Your task to perform on an android device: all mails in gmail Image 0: 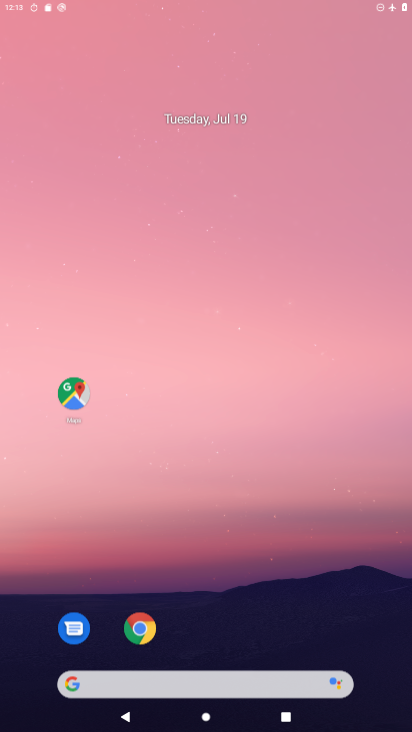
Step 0: click (275, 116)
Your task to perform on an android device: all mails in gmail Image 1: 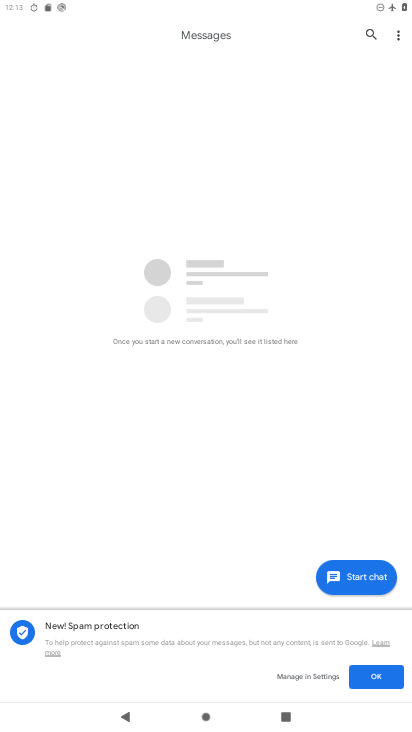
Step 1: press home button
Your task to perform on an android device: all mails in gmail Image 2: 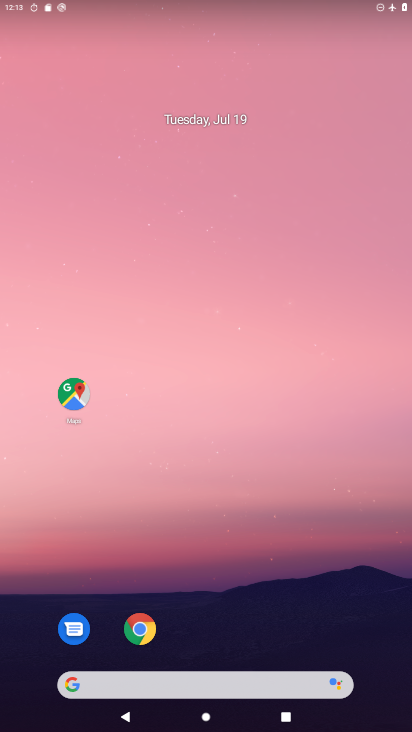
Step 2: drag from (252, 606) to (261, 112)
Your task to perform on an android device: all mails in gmail Image 3: 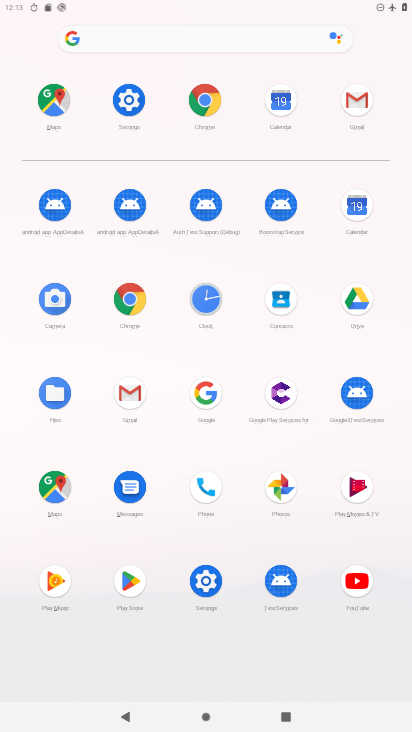
Step 3: click (356, 92)
Your task to perform on an android device: all mails in gmail Image 4: 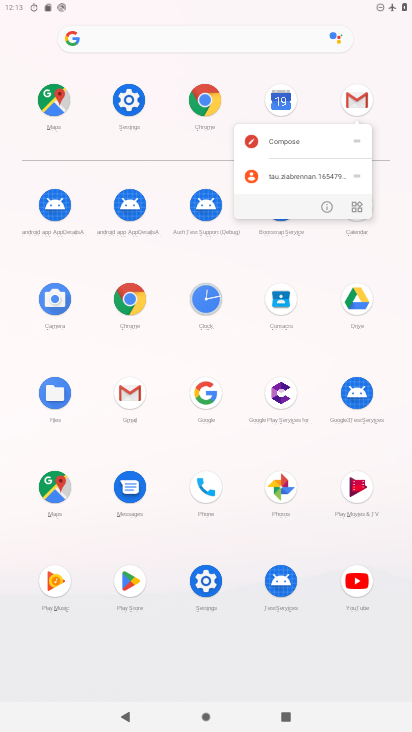
Step 4: click (353, 96)
Your task to perform on an android device: all mails in gmail Image 5: 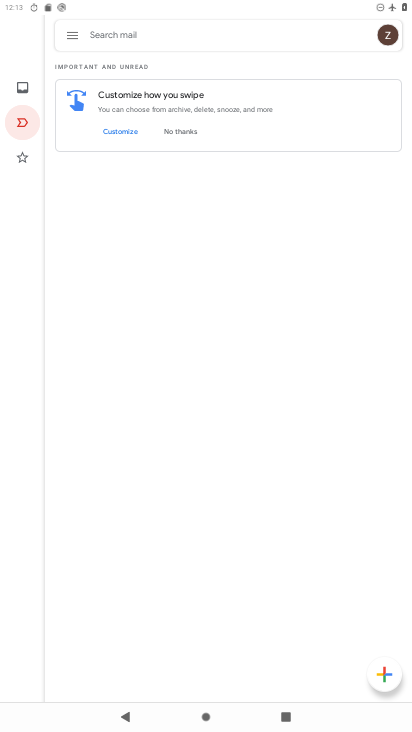
Step 5: click (71, 37)
Your task to perform on an android device: all mails in gmail Image 6: 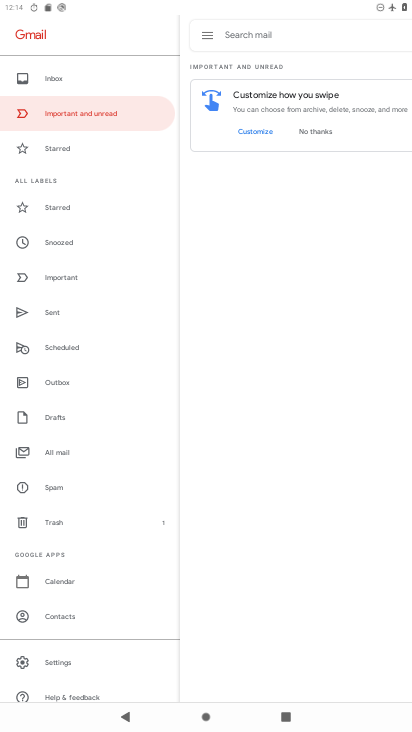
Step 6: click (61, 455)
Your task to perform on an android device: all mails in gmail Image 7: 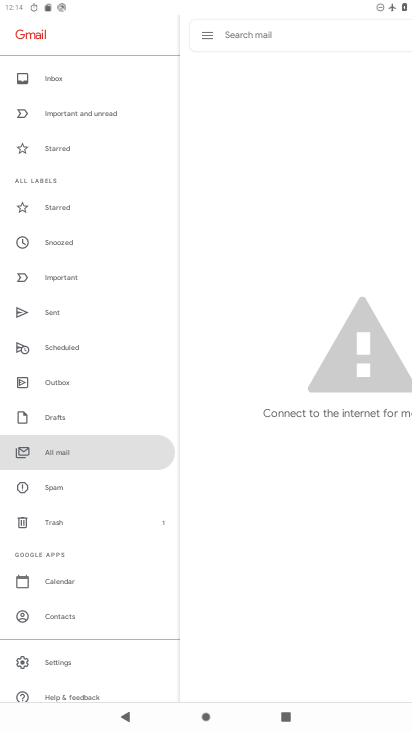
Step 7: task complete